Your task to perform on an android device: turn notification dots on Image 0: 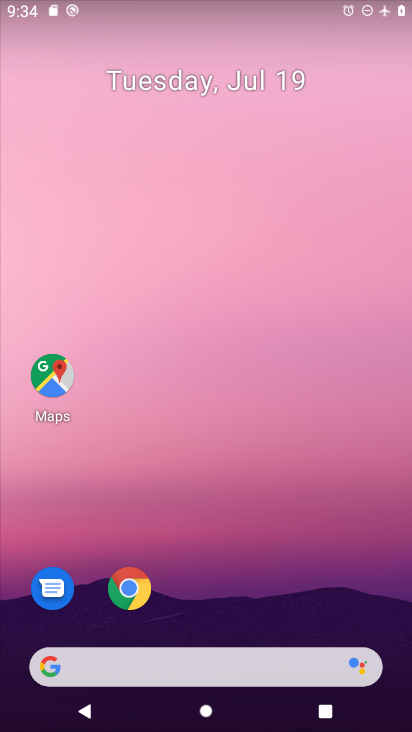
Step 0: drag from (353, 589) to (367, 72)
Your task to perform on an android device: turn notification dots on Image 1: 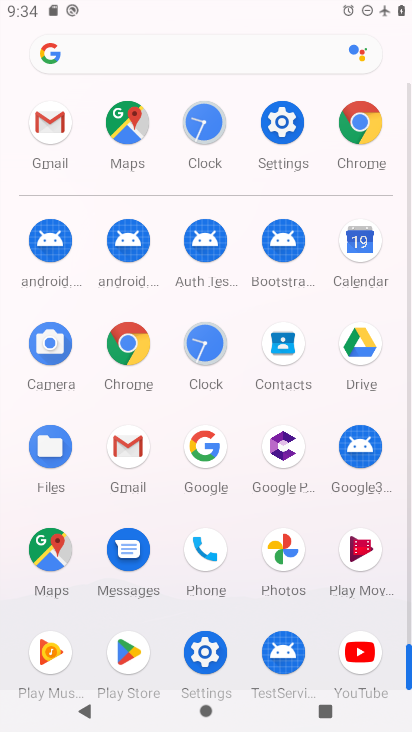
Step 1: click (283, 126)
Your task to perform on an android device: turn notification dots on Image 2: 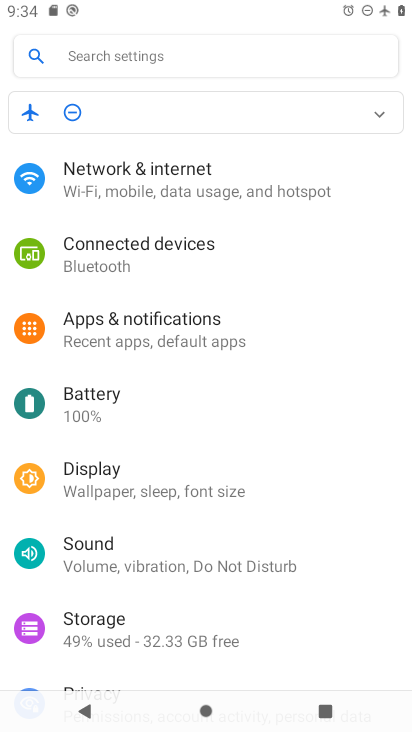
Step 2: drag from (333, 408) to (335, 281)
Your task to perform on an android device: turn notification dots on Image 3: 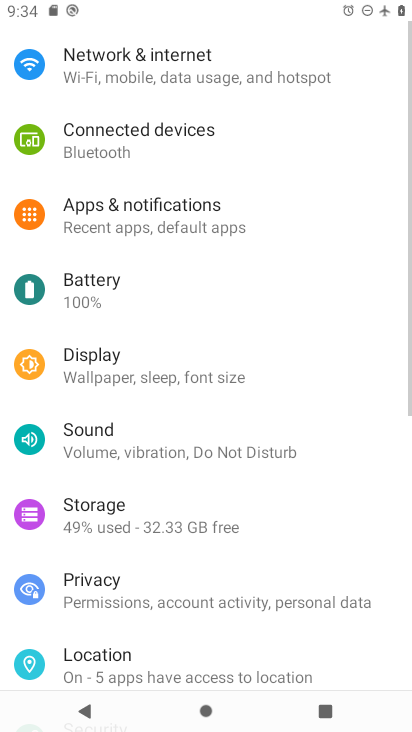
Step 3: drag from (336, 417) to (338, 310)
Your task to perform on an android device: turn notification dots on Image 4: 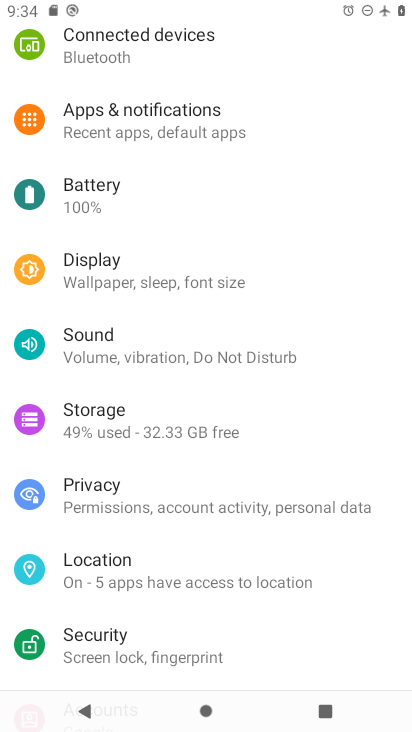
Step 4: drag from (341, 415) to (343, 322)
Your task to perform on an android device: turn notification dots on Image 5: 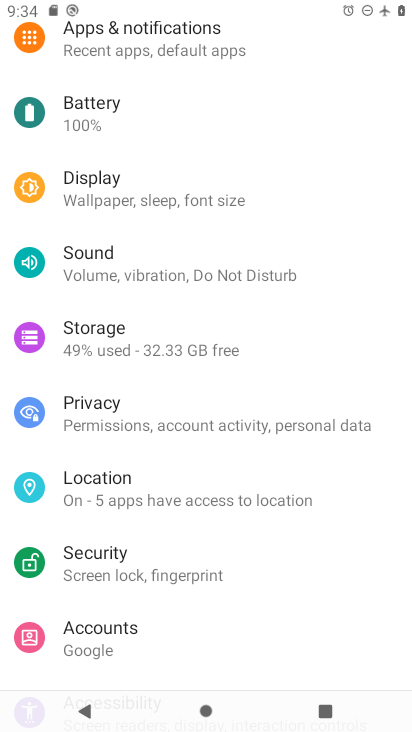
Step 5: drag from (342, 440) to (342, 336)
Your task to perform on an android device: turn notification dots on Image 6: 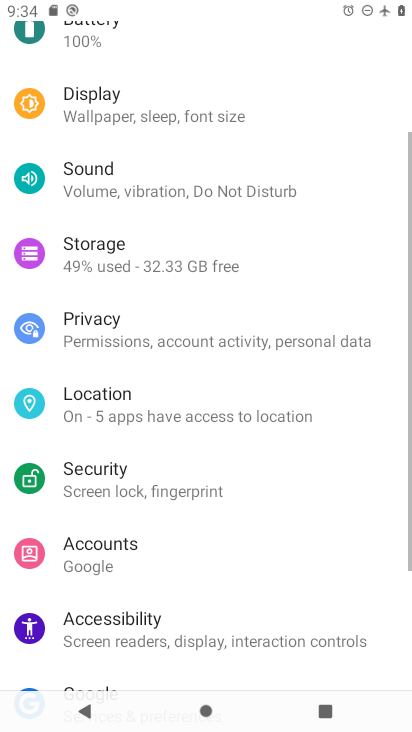
Step 6: drag from (342, 458) to (345, 361)
Your task to perform on an android device: turn notification dots on Image 7: 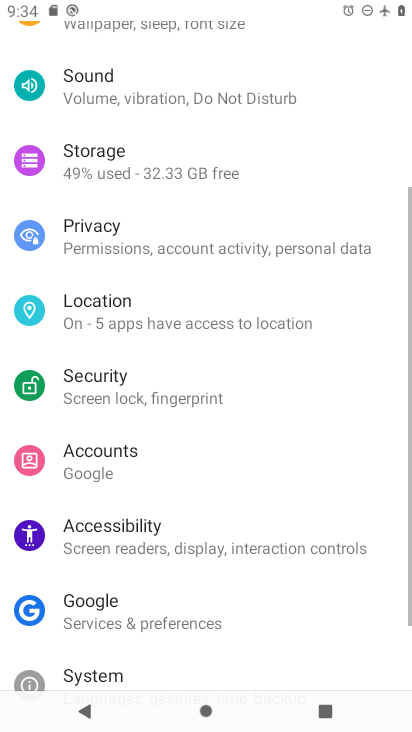
Step 7: drag from (355, 298) to (355, 419)
Your task to perform on an android device: turn notification dots on Image 8: 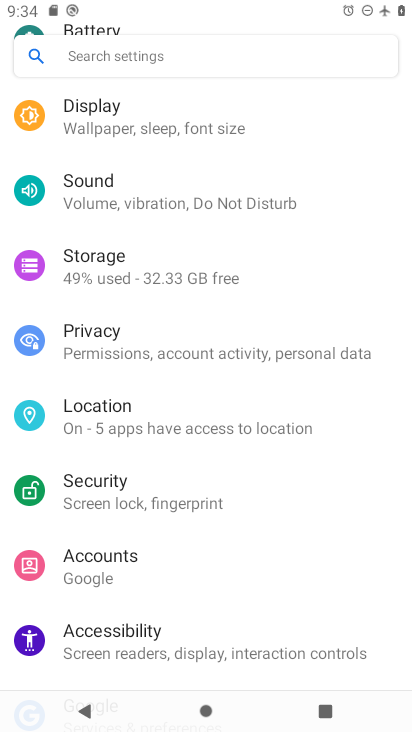
Step 8: drag from (355, 234) to (355, 366)
Your task to perform on an android device: turn notification dots on Image 9: 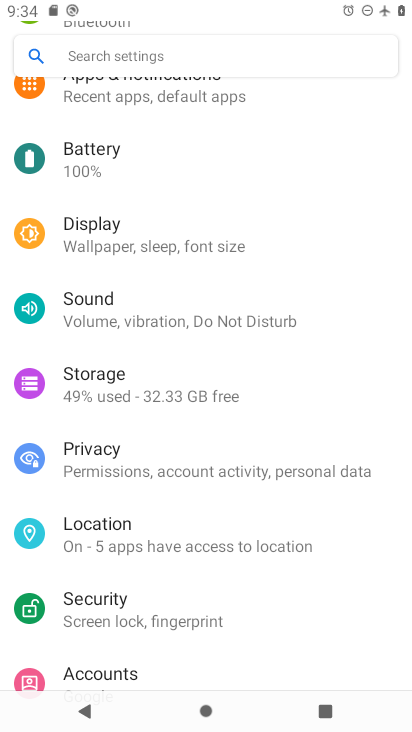
Step 9: drag from (348, 213) to (346, 353)
Your task to perform on an android device: turn notification dots on Image 10: 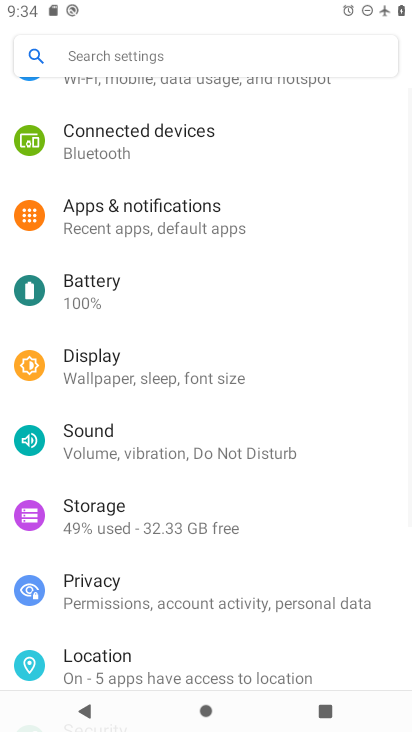
Step 10: drag from (338, 196) to (337, 329)
Your task to perform on an android device: turn notification dots on Image 11: 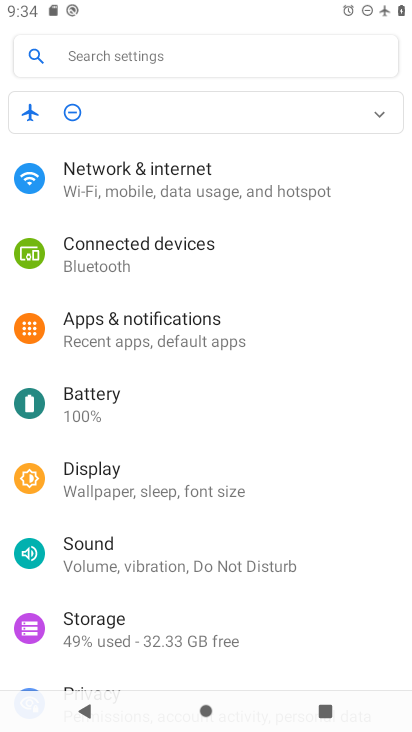
Step 11: click (238, 327)
Your task to perform on an android device: turn notification dots on Image 12: 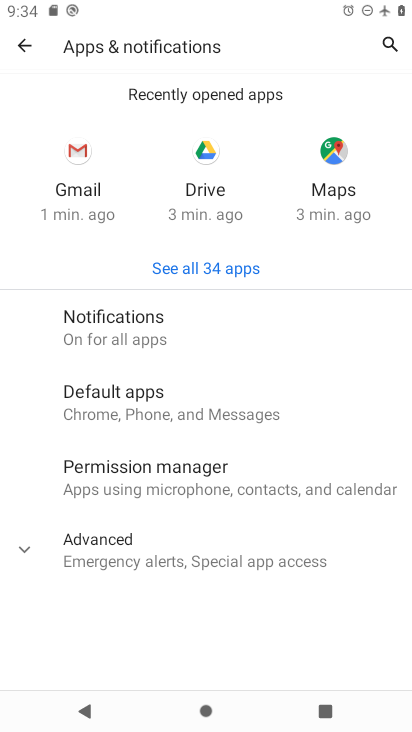
Step 12: click (236, 328)
Your task to perform on an android device: turn notification dots on Image 13: 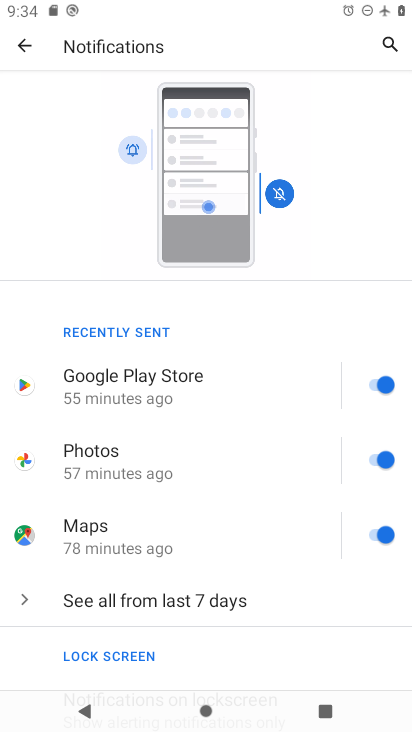
Step 13: drag from (262, 437) to (265, 347)
Your task to perform on an android device: turn notification dots on Image 14: 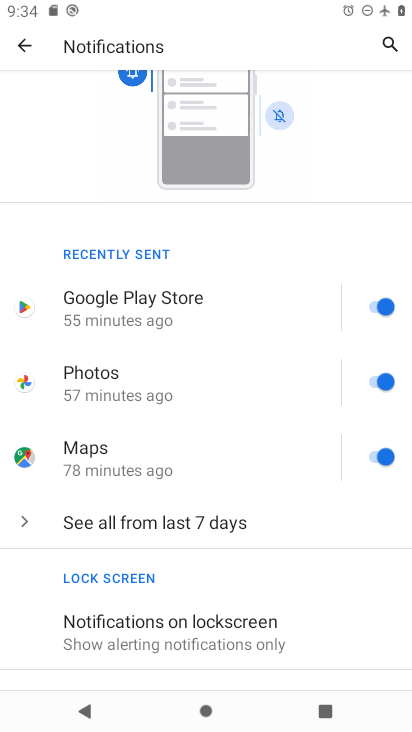
Step 14: drag from (280, 455) to (281, 323)
Your task to perform on an android device: turn notification dots on Image 15: 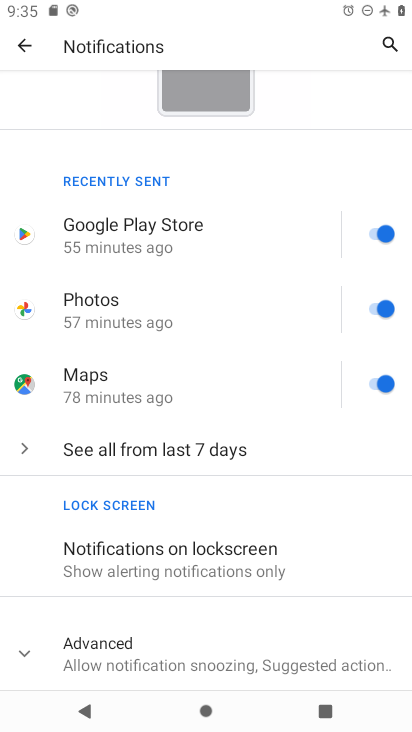
Step 15: click (315, 651)
Your task to perform on an android device: turn notification dots on Image 16: 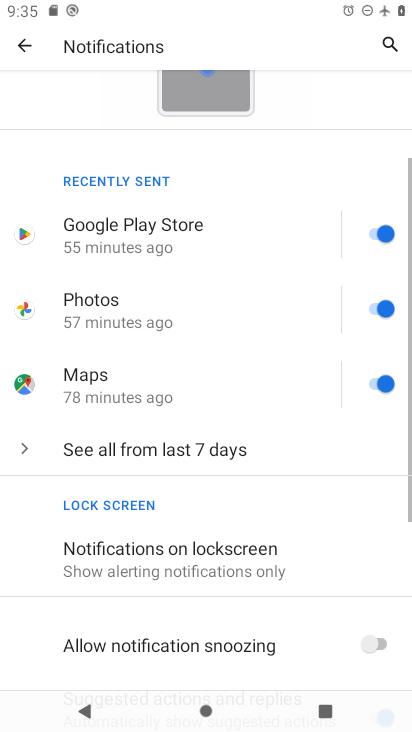
Step 16: drag from (326, 598) to (313, 450)
Your task to perform on an android device: turn notification dots on Image 17: 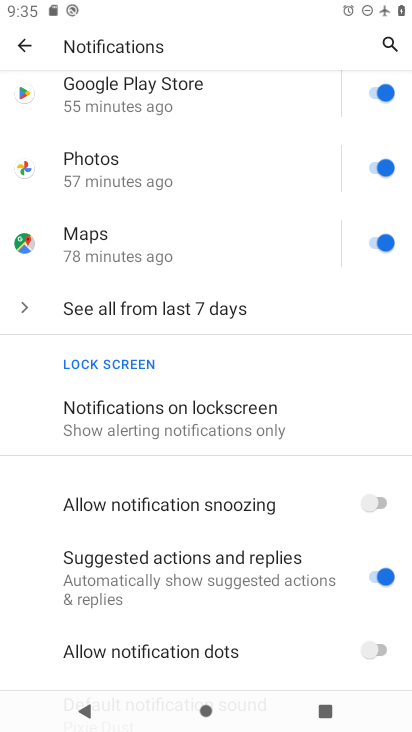
Step 17: drag from (295, 604) to (295, 459)
Your task to perform on an android device: turn notification dots on Image 18: 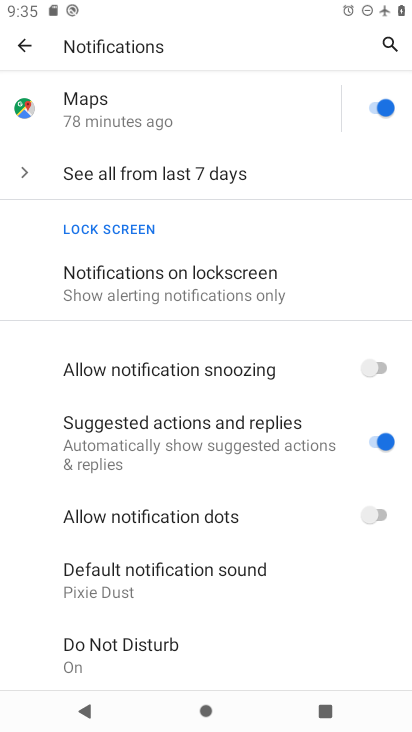
Step 18: click (362, 517)
Your task to perform on an android device: turn notification dots on Image 19: 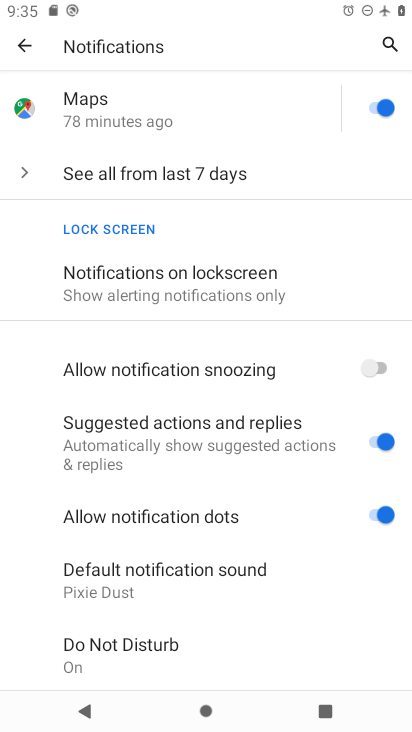
Step 19: task complete